Your task to perform on an android device: turn on wifi Image 0: 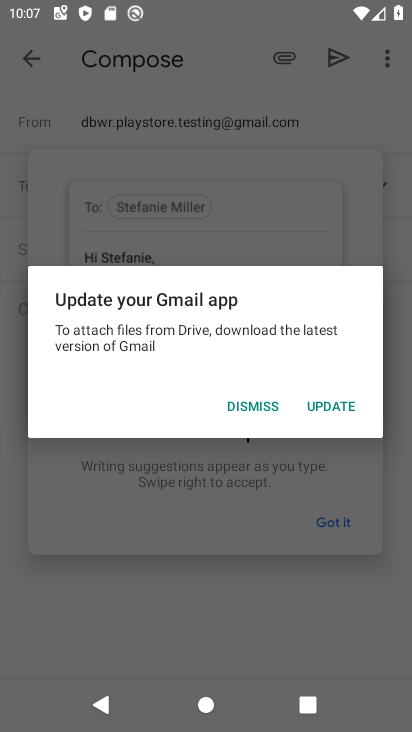
Step 0: press home button
Your task to perform on an android device: turn on wifi Image 1: 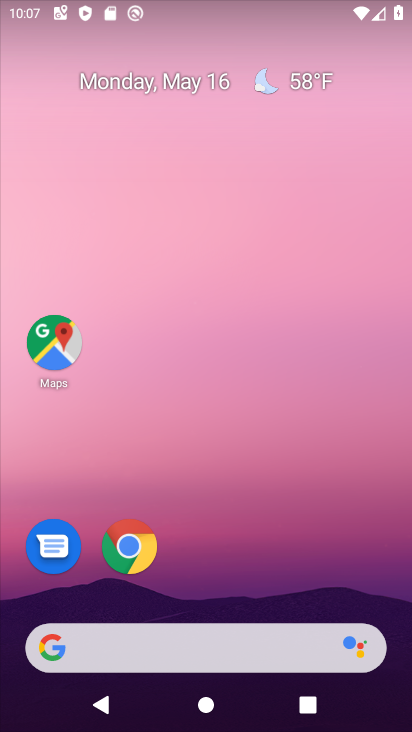
Step 1: drag from (206, 566) to (232, 250)
Your task to perform on an android device: turn on wifi Image 2: 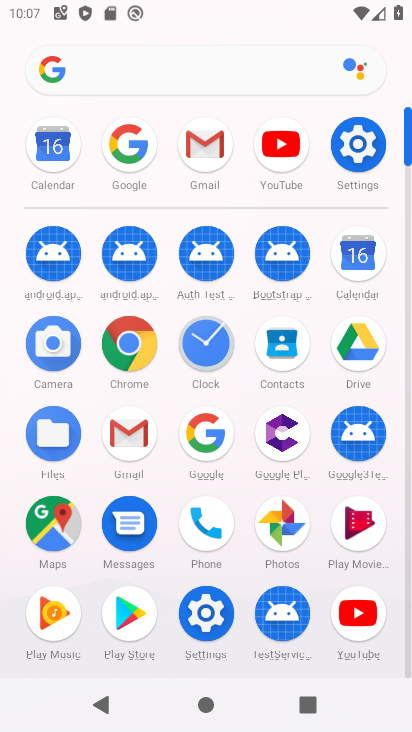
Step 2: click (358, 145)
Your task to perform on an android device: turn on wifi Image 3: 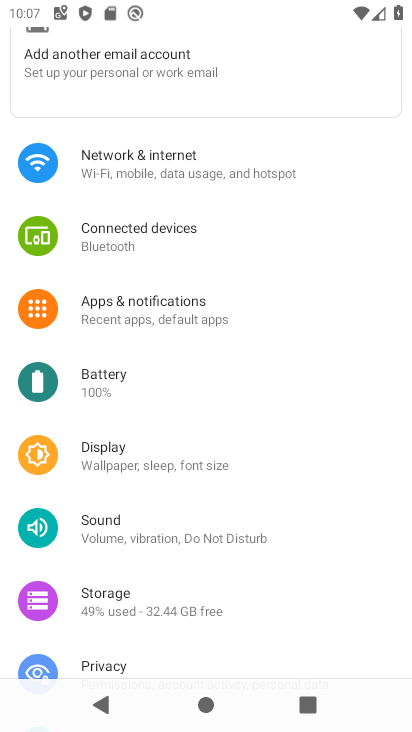
Step 3: click (174, 165)
Your task to perform on an android device: turn on wifi Image 4: 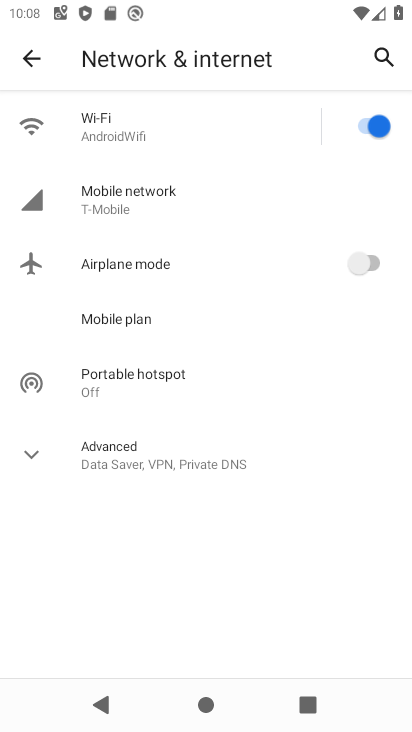
Step 4: task complete